Your task to perform on an android device: manage bookmarks in the chrome app Image 0: 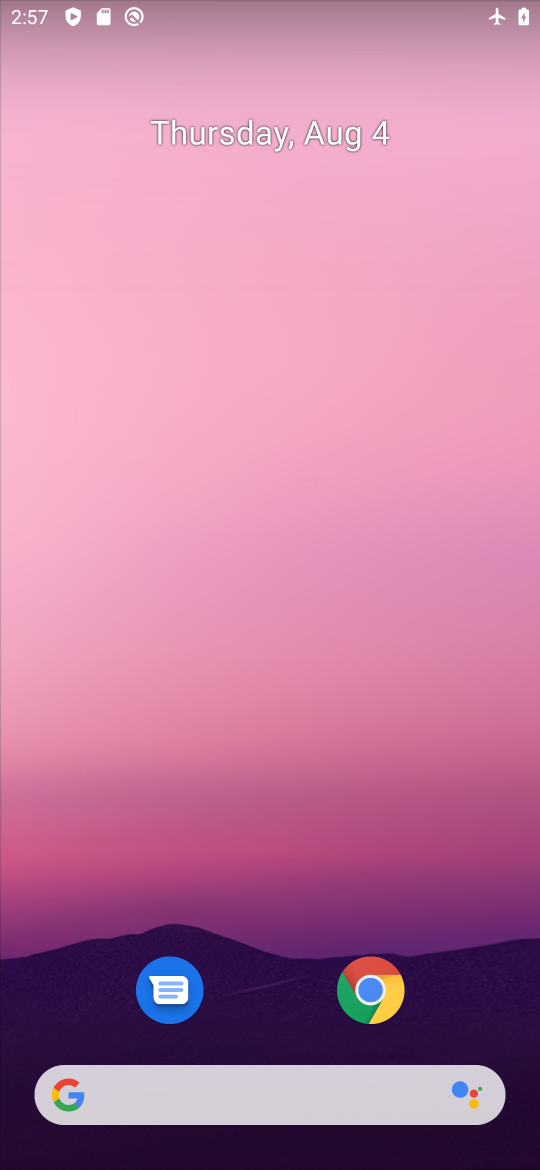
Step 0: task complete